Your task to perform on an android device: Open calendar and show me the first week of next month Image 0: 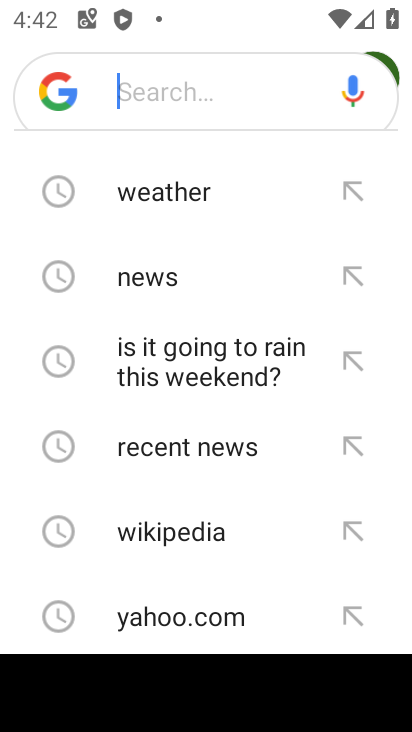
Step 0: press home button
Your task to perform on an android device: Open calendar and show me the first week of next month Image 1: 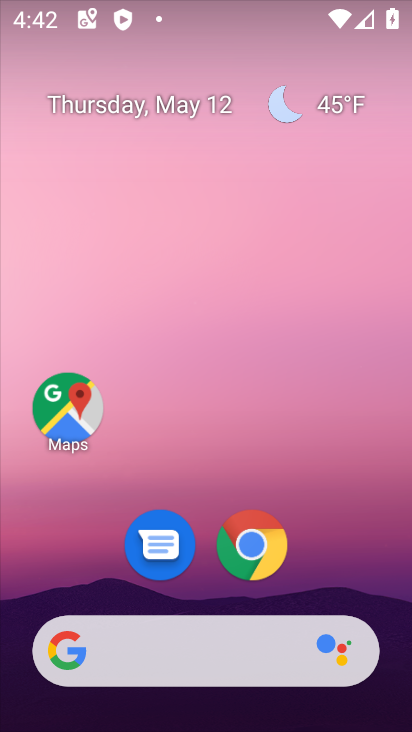
Step 1: drag from (353, 512) to (260, 94)
Your task to perform on an android device: Open calendar and show me the first week of next month Image 2: 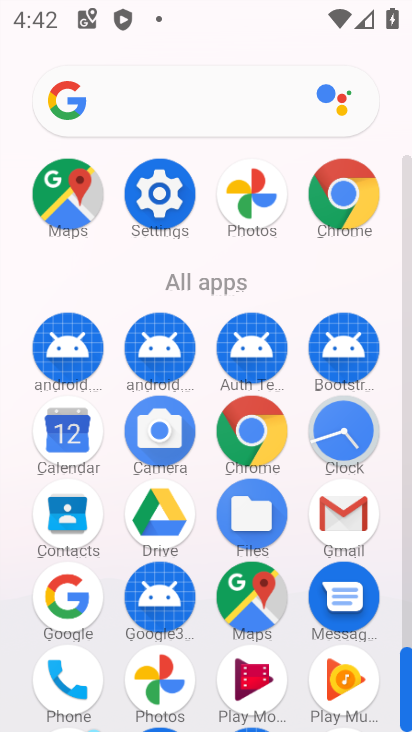
Step 2: click (85, 440)
Your task to perform on an android device: Open calendar and show me the first week of next month Image 3: 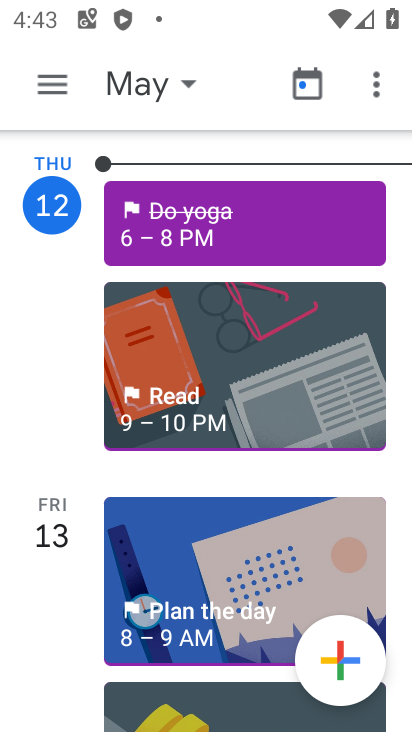
Step 3: click (163, 97)
Your task to perform on an android device: Open calendar and show me the first week of next month Image 4: 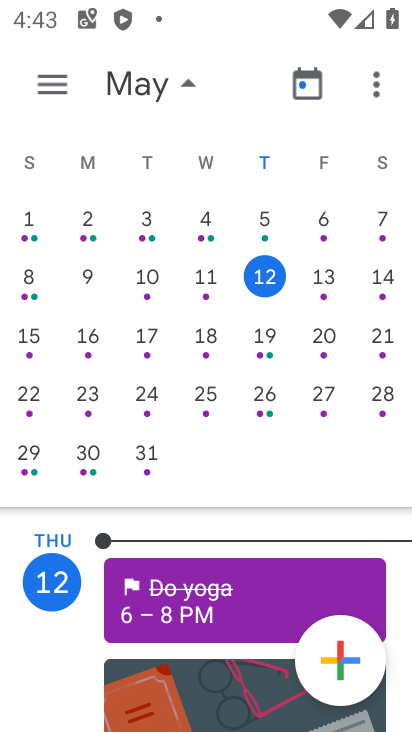
Step 4: drag from (338, 301) to (48, 294)
Your task to perform on an android device: Open calendar and show me the first week of next month Image 5: 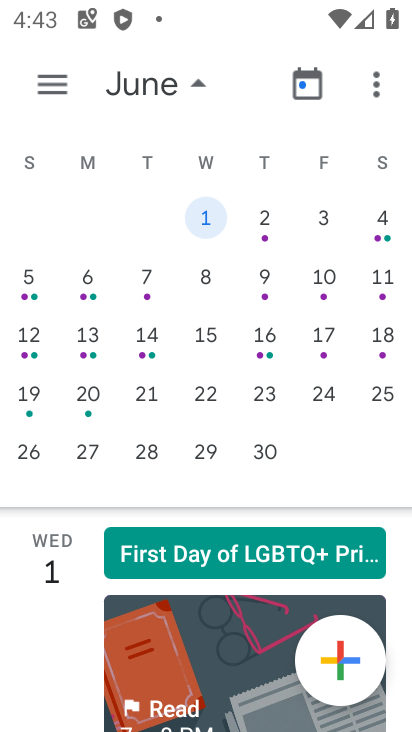
Step 5: click (267, 209)
Your task to perform on an android device: Open calendar and show me the first week of next month Image 6: 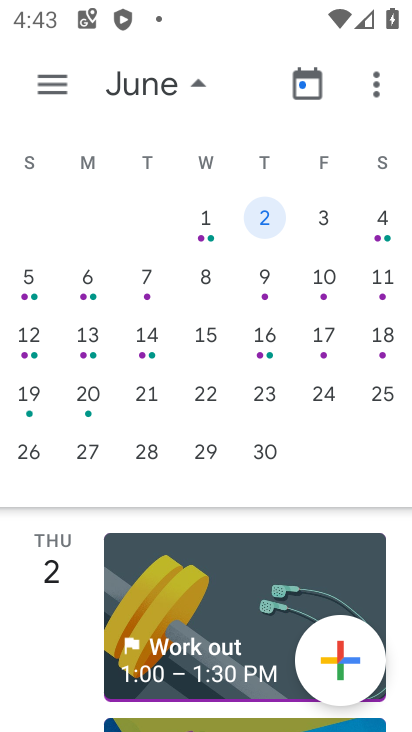
Step 6: task complete